Your task to perform on an android device: Open Yahoo.com Image 0: 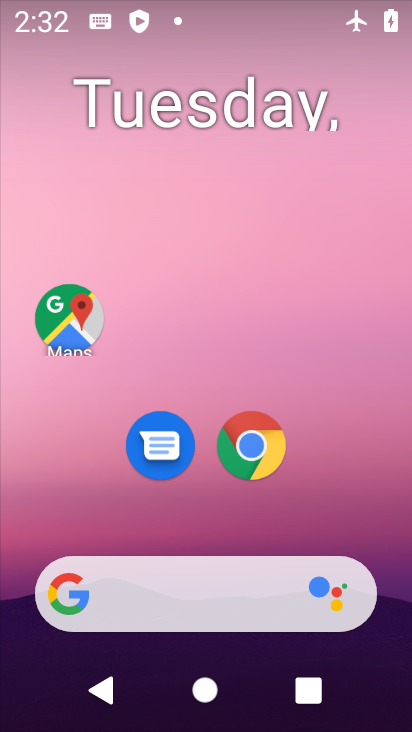
Step 0: click (245, 448)
Your task to perform on an android device: Open Yahoo.com Image 1: 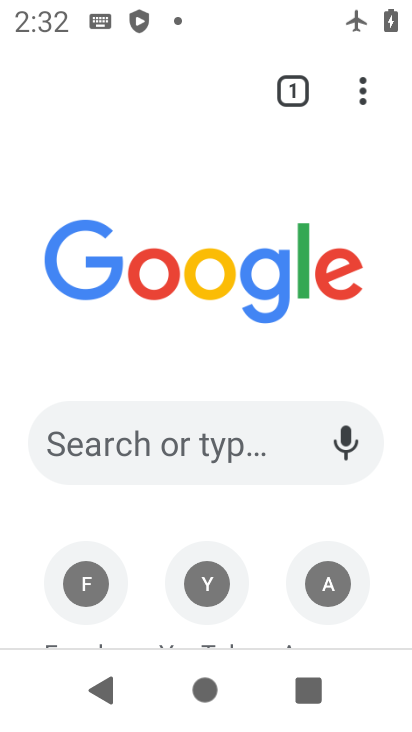
Step 1: click (230, 496)
Your task to perform on an android device: Open Yahoo.com Image 2: 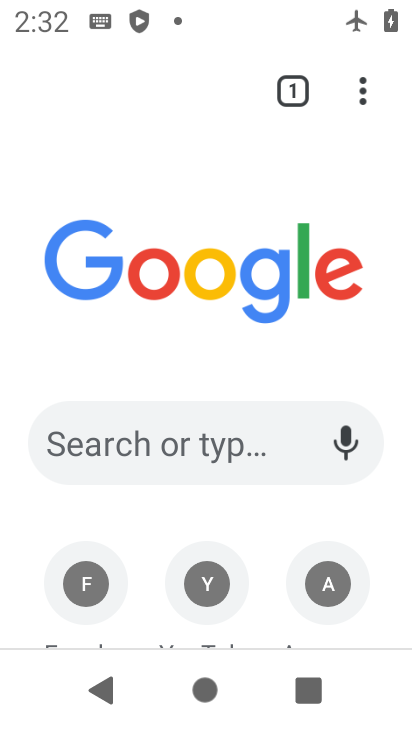
Step 2: drag from (213, 577) to (208, 361)
Your task to perform on an android device: Open Yahoo.com Image 3: 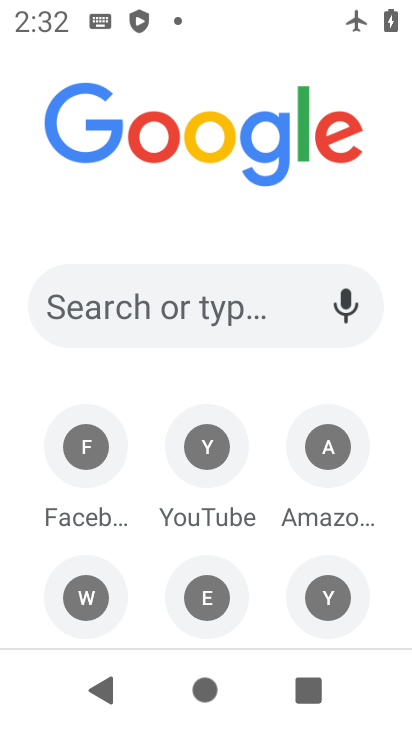
Step 3: click (349, 601)
Your task to perform on an android device: Open Yahoo.com Image 4: 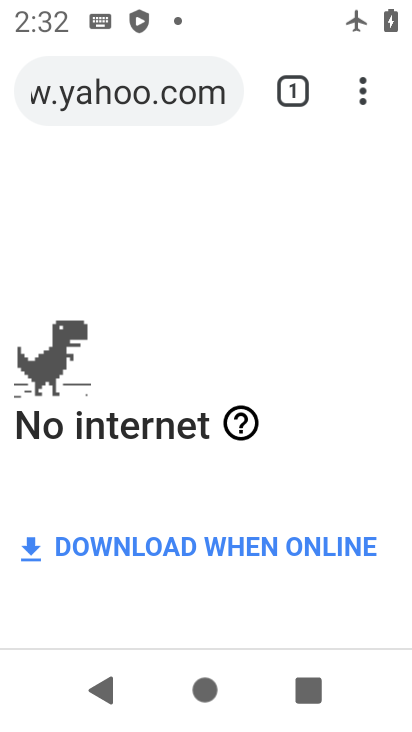
Step 4: task complete